Your task to perform on an android device: check storage Image 0: 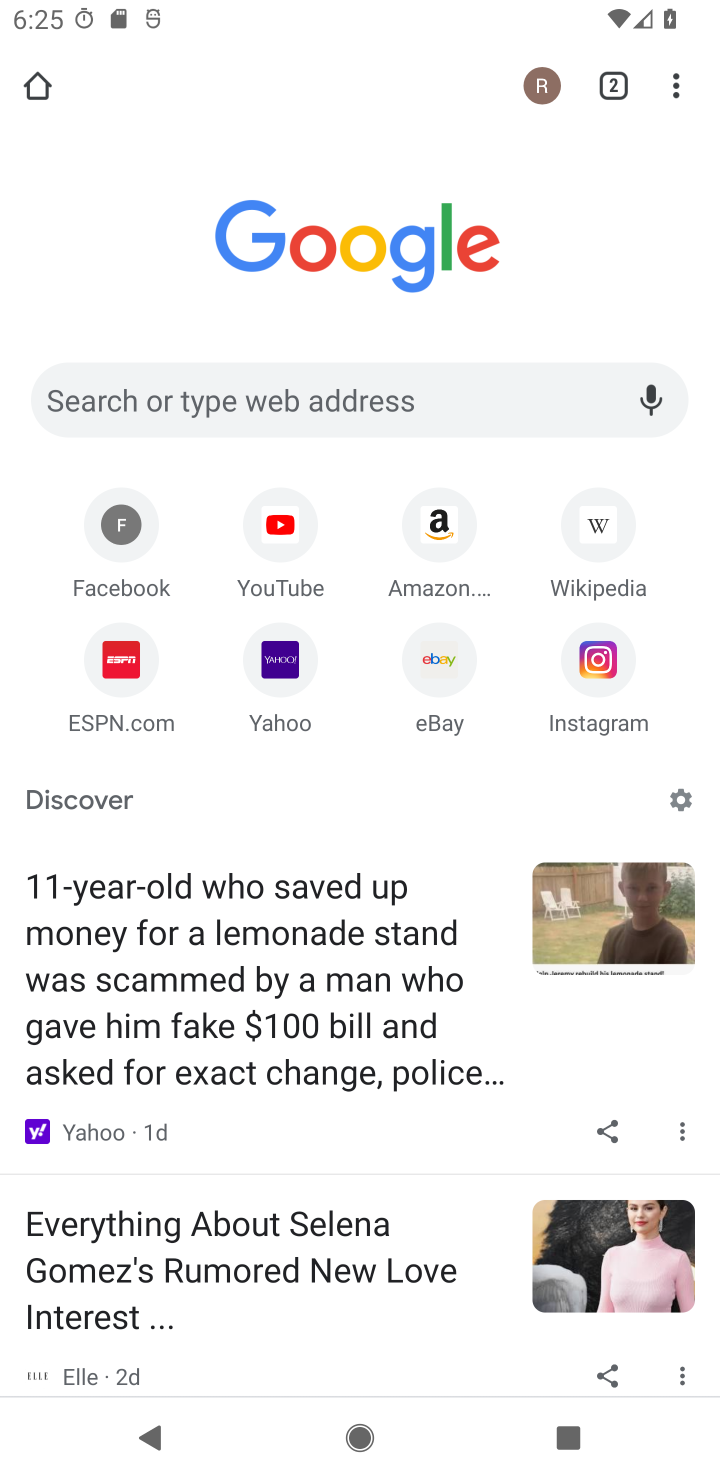
Step 0: press home button
Your task to perform on an android device: check storage Image 1: 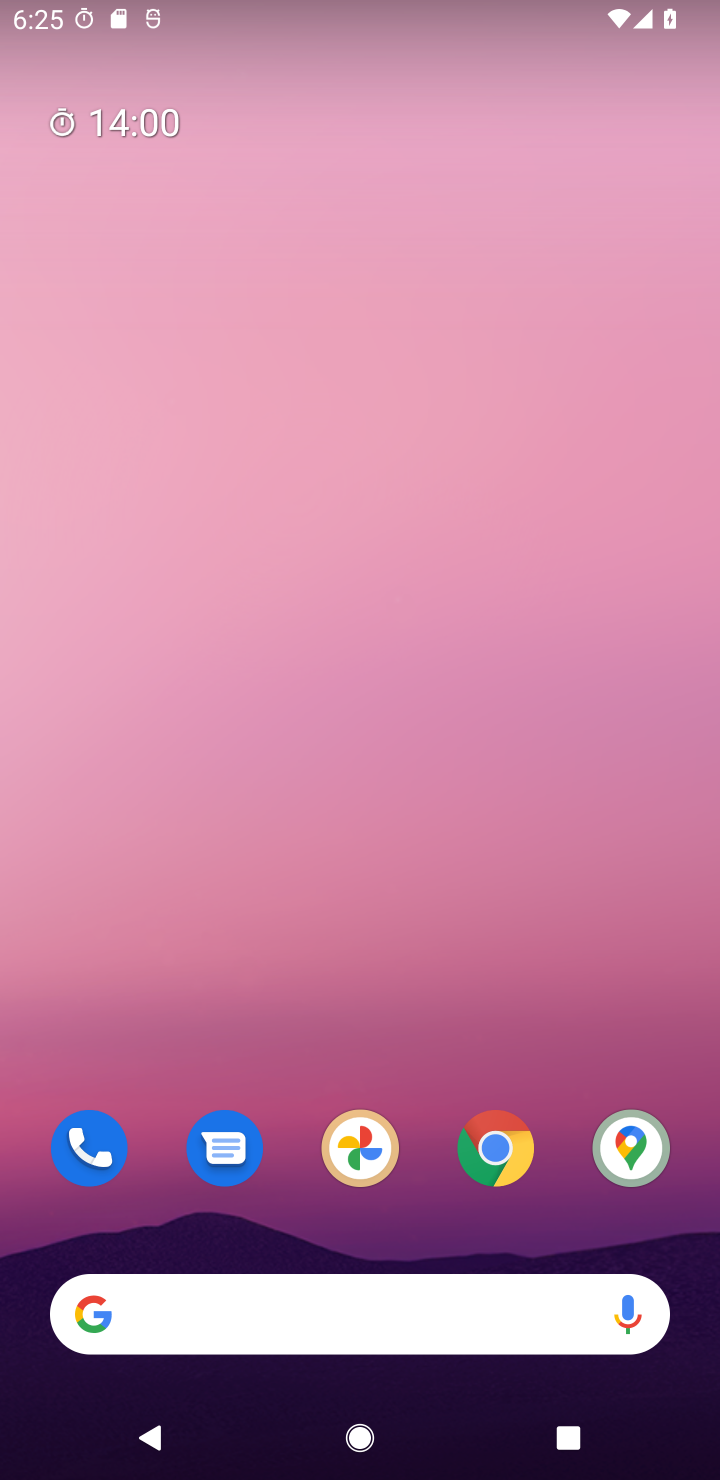
Step 1: drag from (328, 1225) to (344, 0)
Your task to perform on an android device: check storage Image 2: 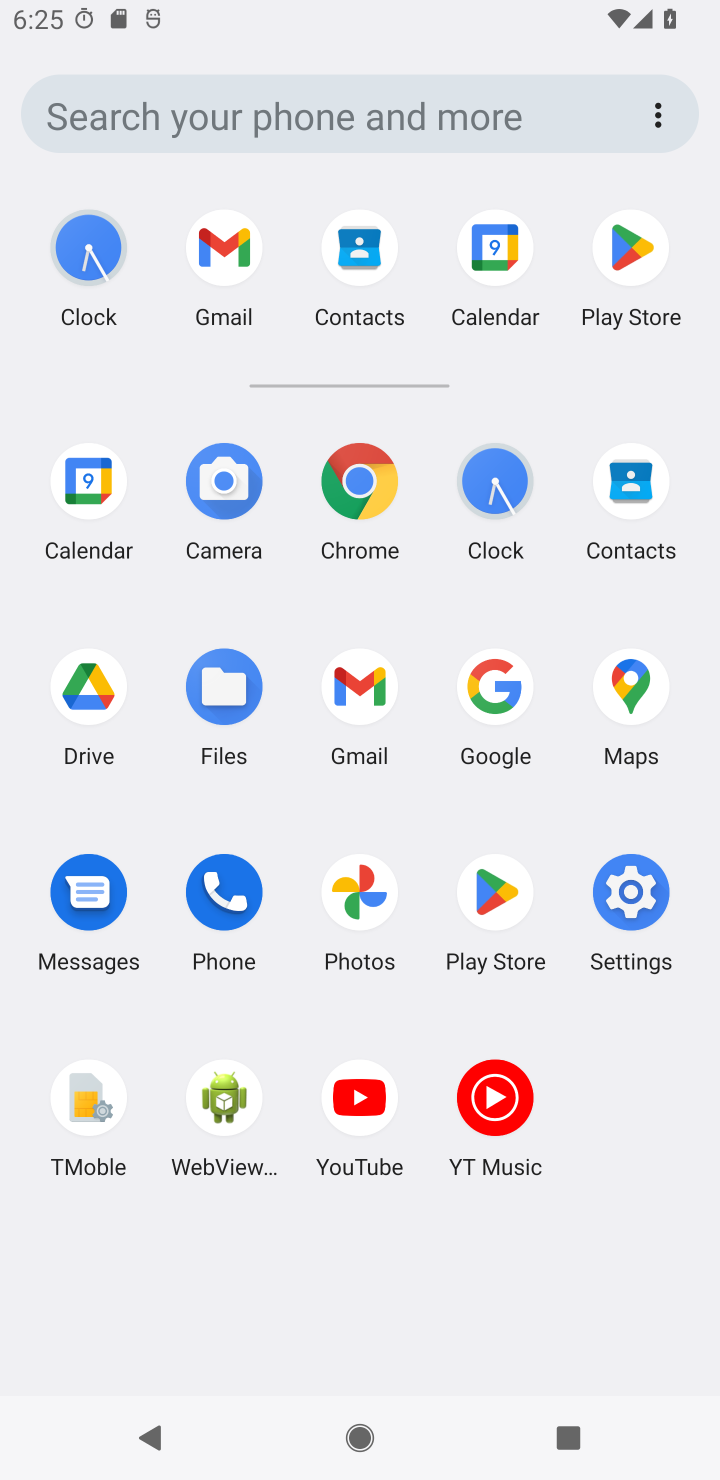
Step 2: click (644, 911)
Your task to perform on an android device: check storage Image 3: 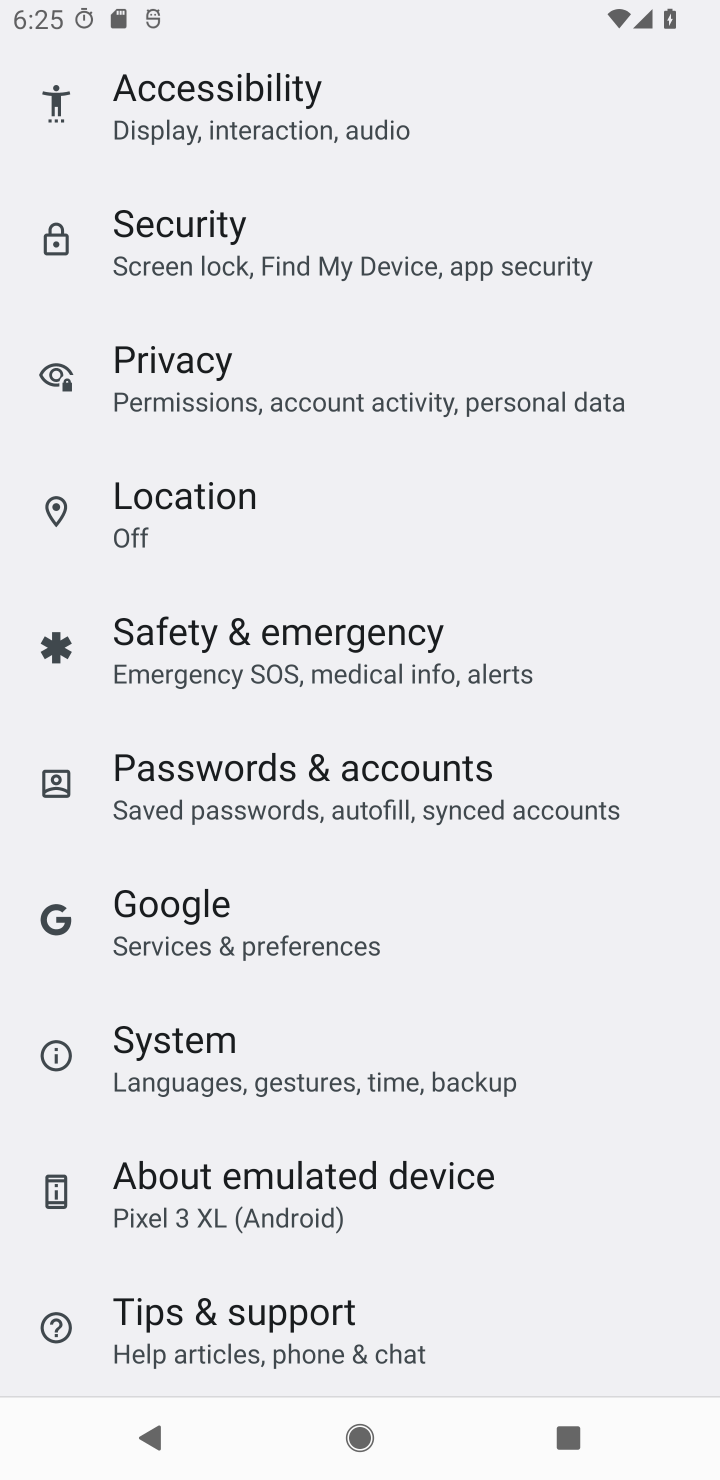
Step 3: drag from (292, 232) to (301, 1155)
Your task to perform on an android device: check storage Image 4: 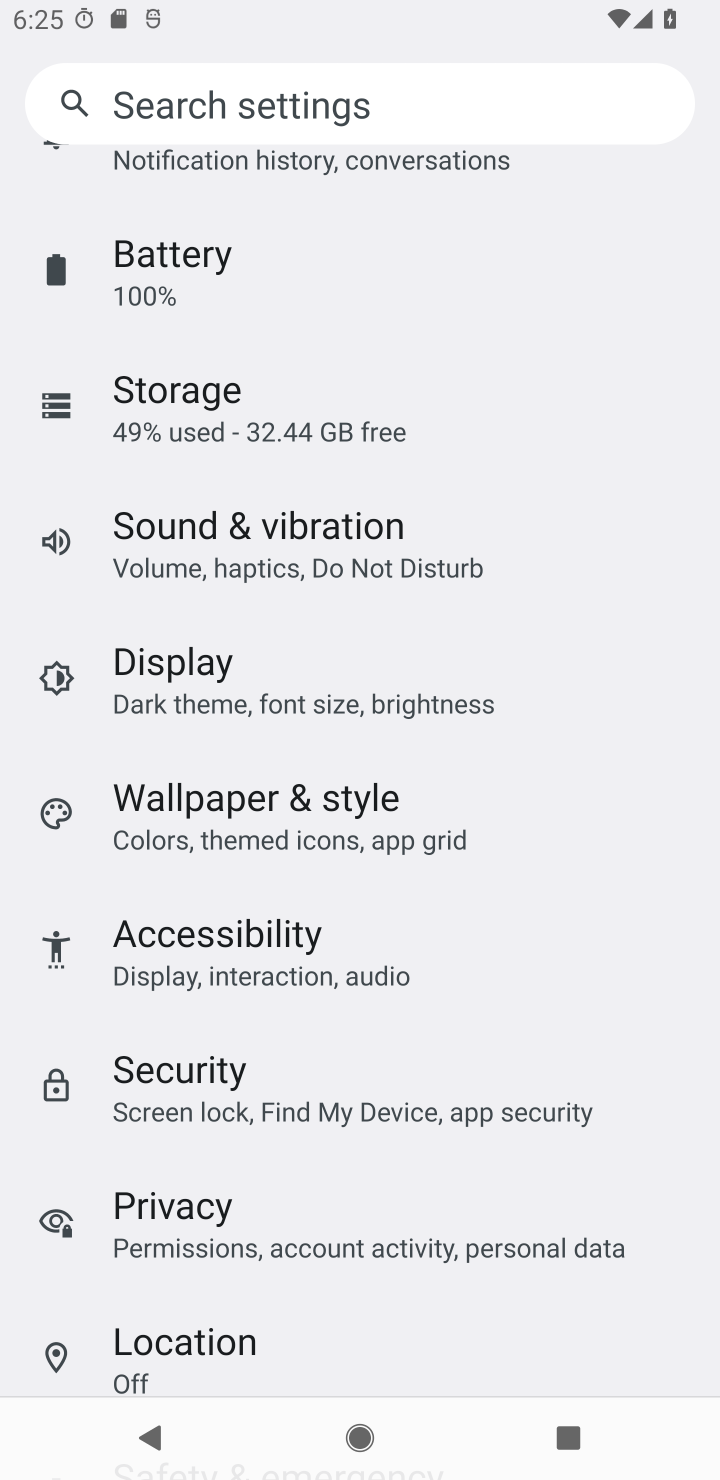
Step 4: click (249, 431)
Your task to perform on an android device: check storage Image 5: 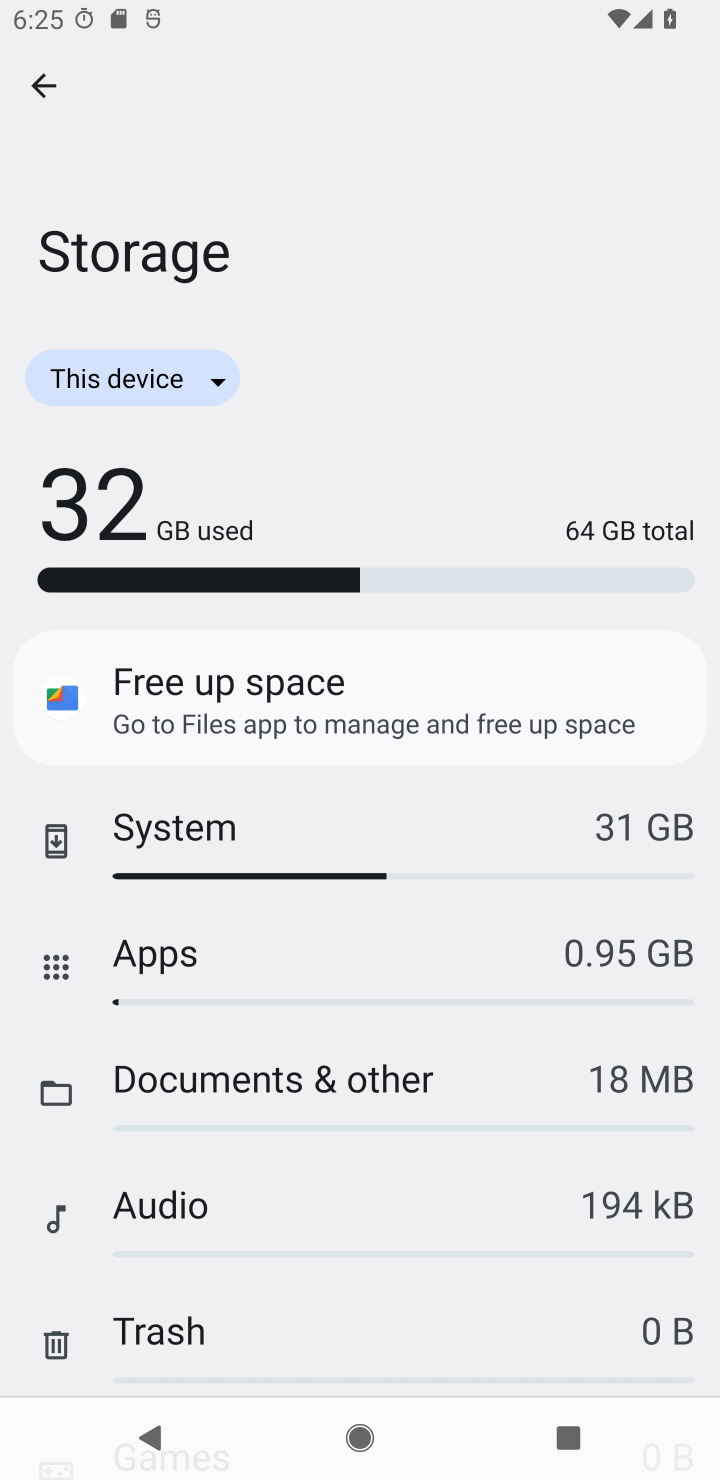
Step 5: task complete